Your task to perform on an android device: read, delete, or share a saved page in the chrome app Image 0: 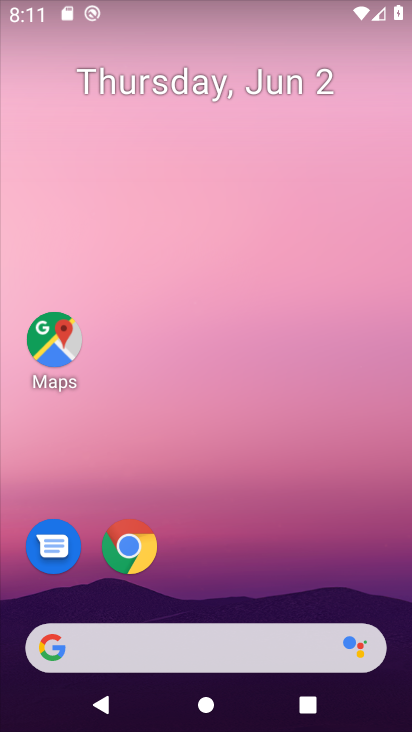
Step 0: click (230, 171)
Your task to perform on an android device: read, delete, or share a saved page in the chrome app Image 1: 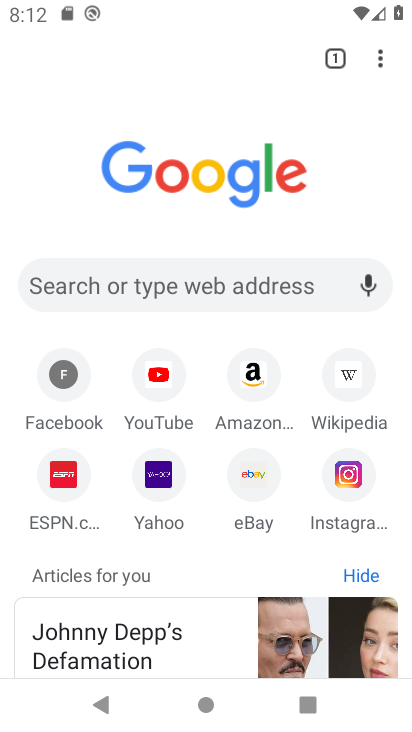
Step 1: press back button
Your task to perform on an android device: read, delete, or share a saved page in the chrome app Image 2: 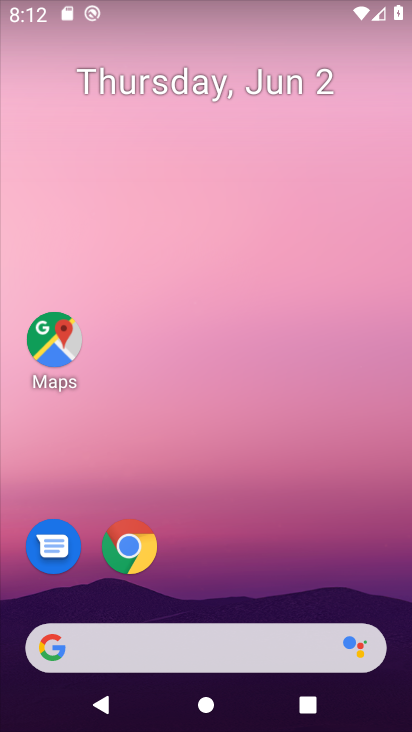
Step 2: drag from (273, 690) to (199, 61)
Your task to perform on an android device: read, delete, or share a saved page in the chrome app Image 3: 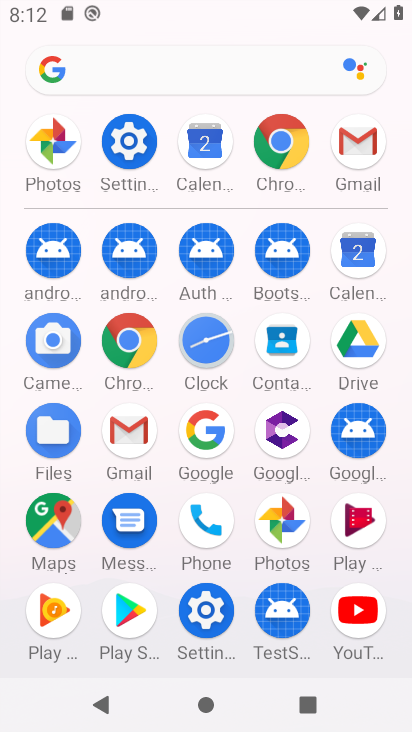
Step 3: click (280, 148)
Your task to perform on an android device: read, delete, or share a saved page in the chrome app Image 4: 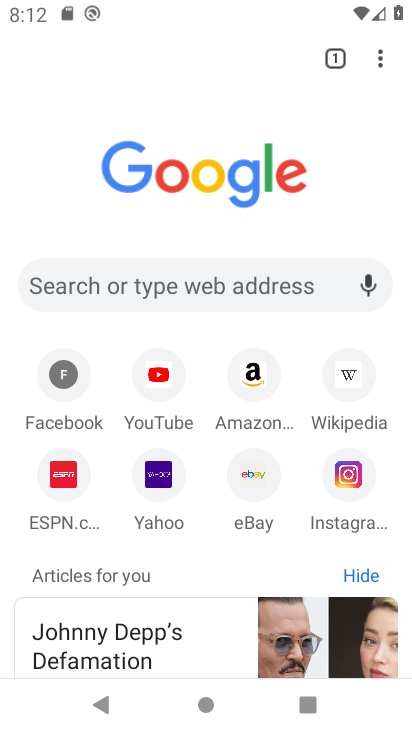
Step 4: drag from (378, 58) to (179, 393)
Your task to perform on an android device: read, delete, or share a saved page in the chrome app Image 5: 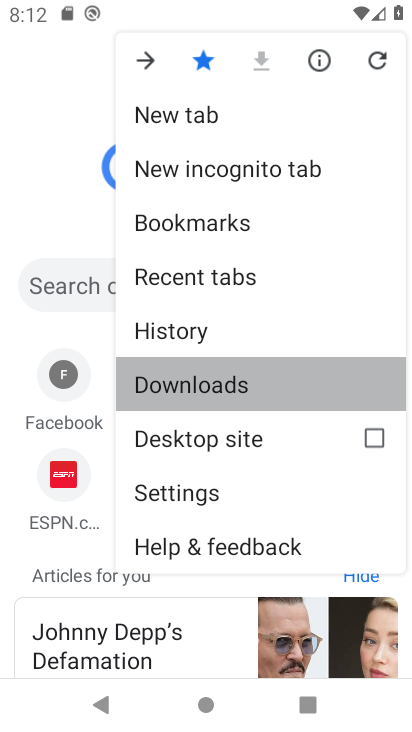
Step 5: click (186, 386)
Your task to perform on an android device: read, delete, or share a saved page in the chrome app Image 6: 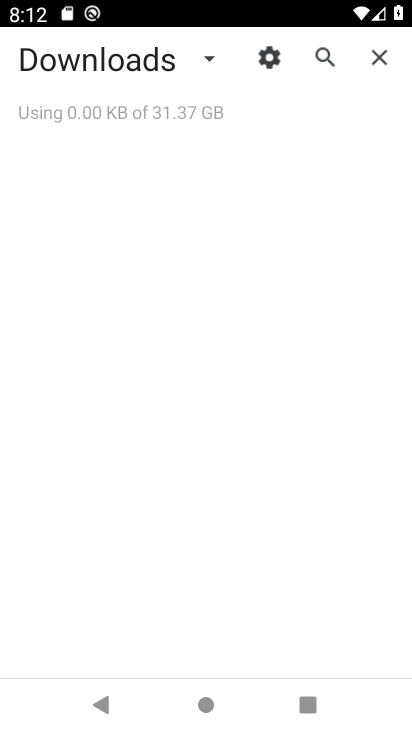
Step 6: click (209, 58)
Your task to perform on an android device: read, delete, or share a saved page in the chrome app Image 7: 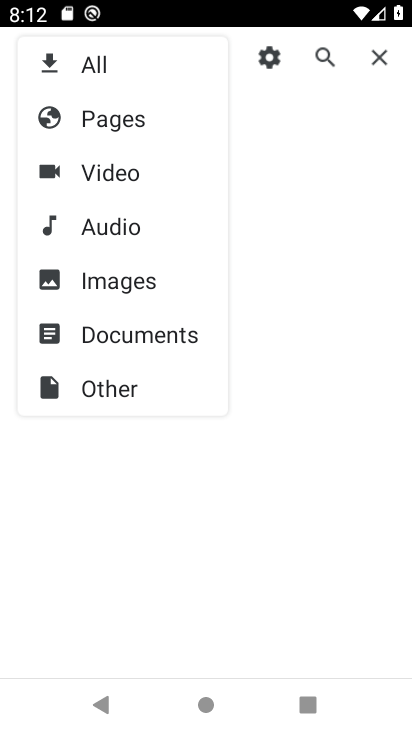
Step 7: click (96, 57)
Your task to perform on an android device: read, delete, or share a saved page in the chrome app Image 8: 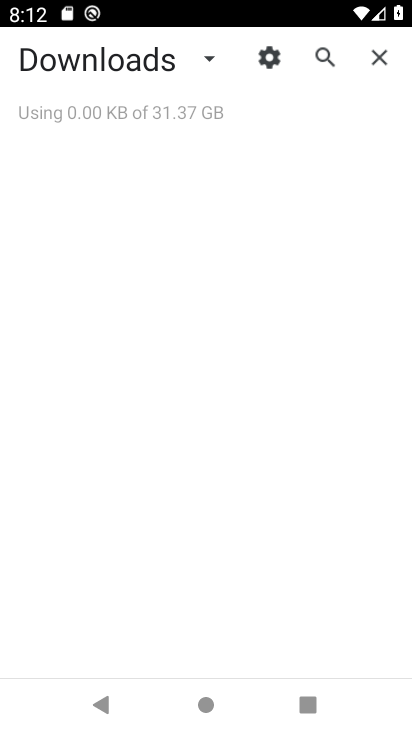
Step 8: task complete